Your task to perform on an android device: turn on showing notifications on the lock screen Image 0: 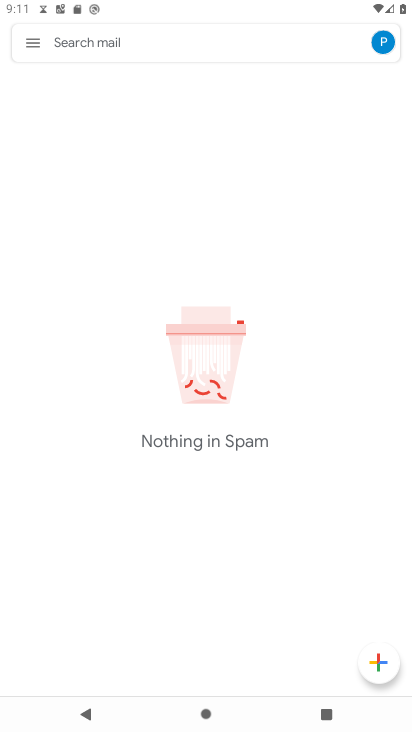
Step 0: press home button
Your task to perform on an android device: turn on showing notifications on the lock screen Image 1: 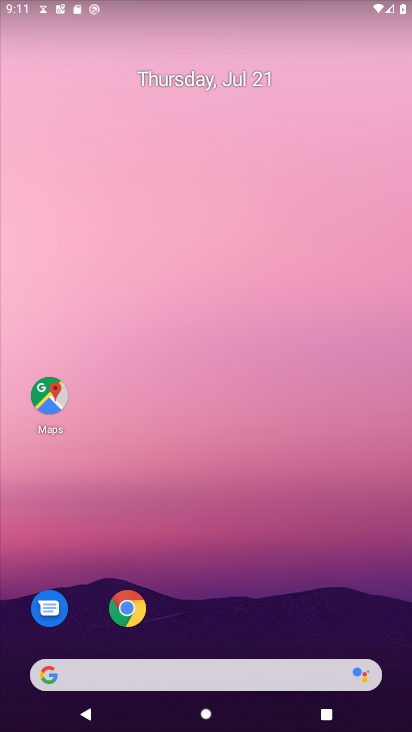
Step 1: drag from (178, 574) to (182, 295)
Your task to perform on an android device: turn on showing notifications on the lock screen Image 2: 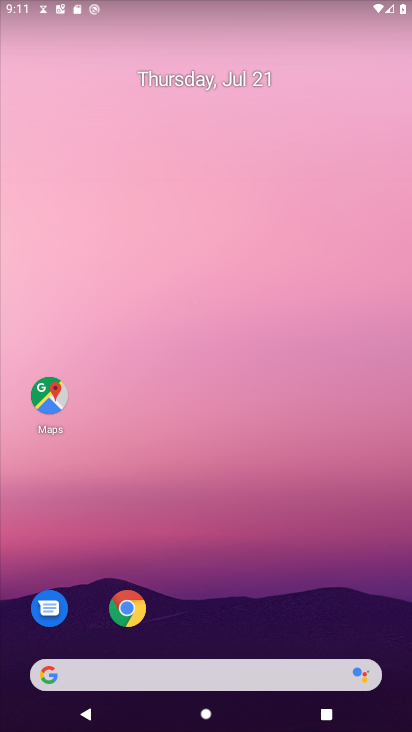
Step 2: drag from (223, 424) to (171, 219)
Your task to perform on an android device: turn on showing notifications on the lock screen Image 3: 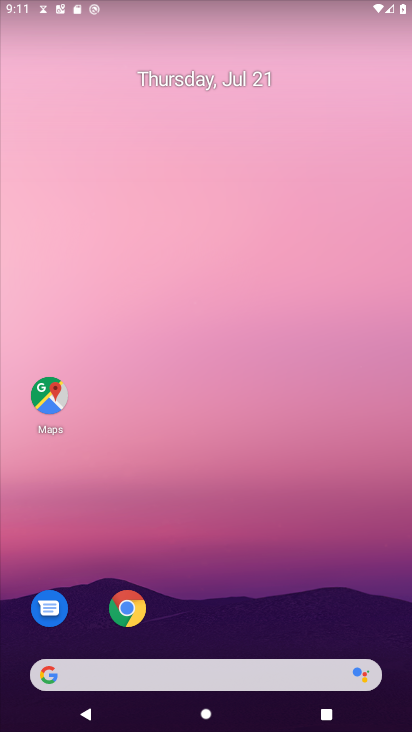
Step 3: drag from (177, 630) to (174, 91)
Your task to perform on an android device: turn on showing notifications on the lock screen Image 4: 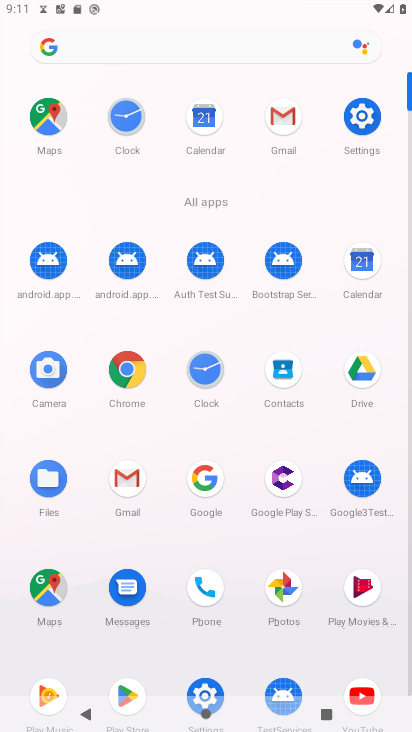
Step 4: click (370, 132)
Your task to perform on an android device: turn on showing notifications on the lock screen Image 5: 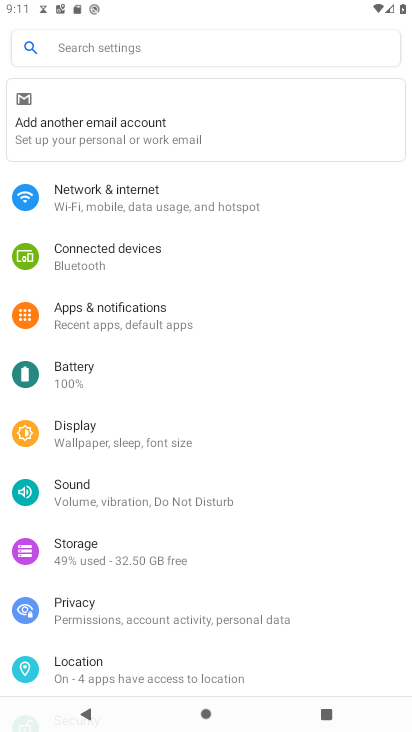
Step 5: click (113, 312)
Your task to perform on an android device: turn on showing notifications on the lock screen Image 6: 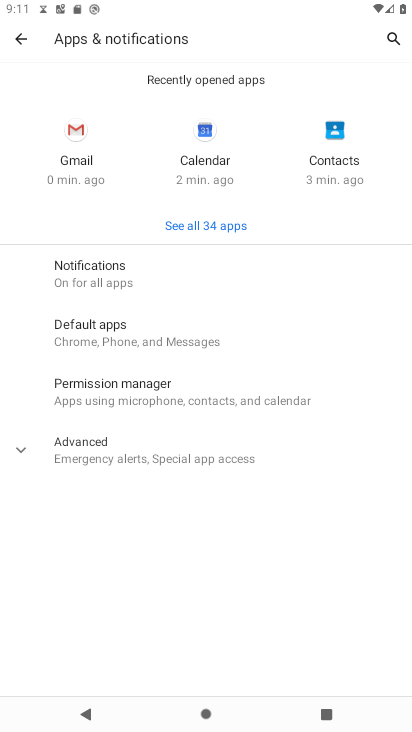
Step 6: click (92, 463)
Your task to perform on an android device: turn on showing notifications on the lock screen Image 7: 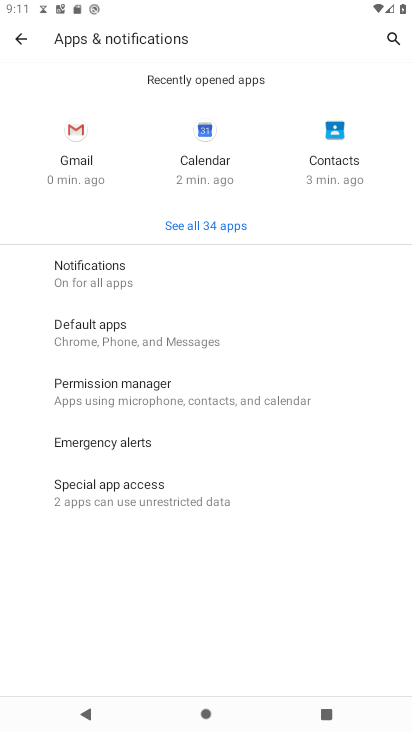
Step 7: click (95, 257)
Your task to perform on an android device: turn on showing notifications on the lock screen Image 8: 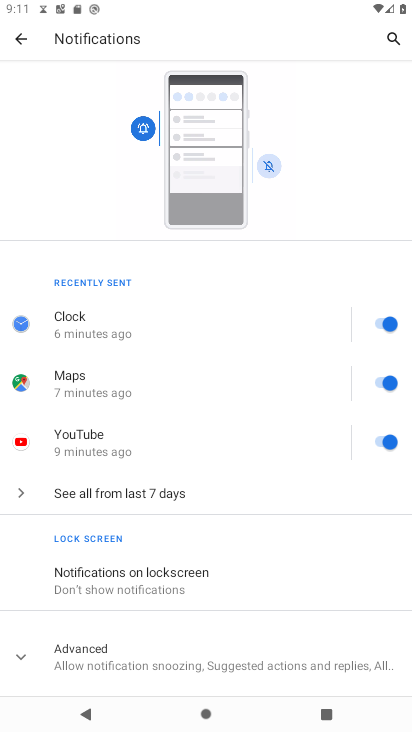
Step 8: click (180, 585)
Your task to perform on an android device: turn on showing notifications on the lock screen Image 9: 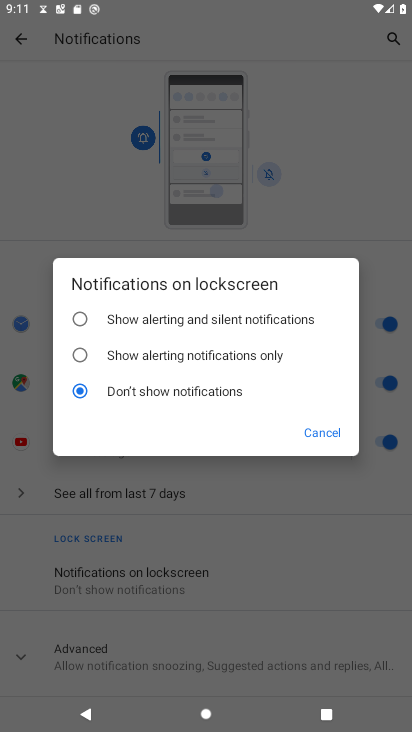
Step 9: click (79, 321)
Your task to perform on an android device: turn on showing notifications on the lock screen Image 10: 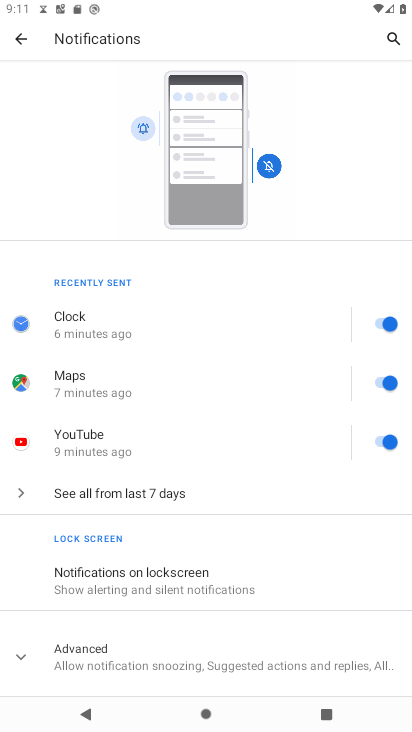
Step 10: task complete